Your task to perform on an android device: turn off airplane mode Image 0: 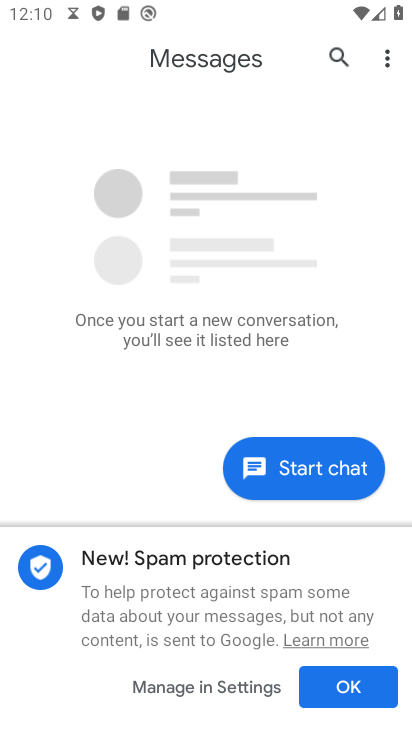
Step 0: press back button
Your task to perform on an android device: turn off airplane mode Image 1: 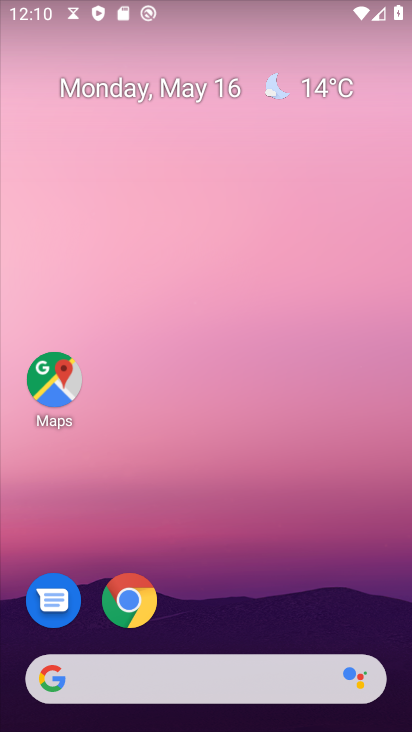
Step 1: drag from (197, 567) to (198, 52)
Your task to perform on an android device: turn off airplane mode Image 2: 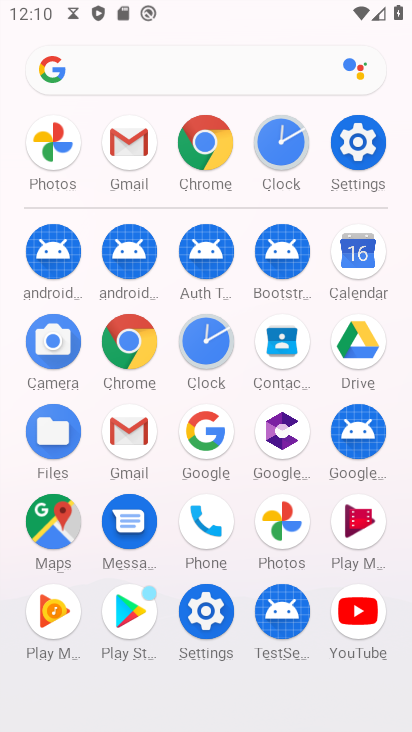
Step 2: click (207, 610)
Your task to perform on an android device: turn off airplane mode Image 3: 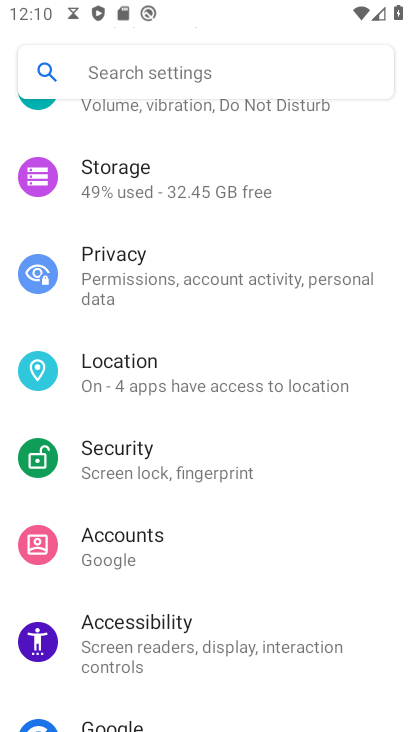
Step 3: drag from (213, 458) to (213, 566)
Your task to perform on an android device: turn off airplane mode Image 4: 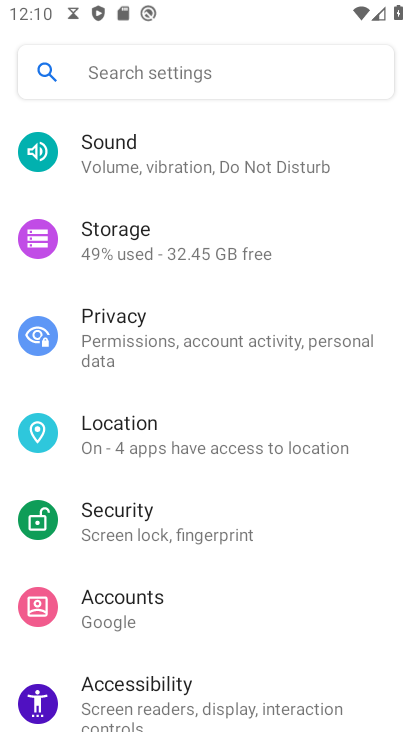
Step 4: drag from (241, 217) to (240, 644)
Your task to perform on an android device: turn off airplane mode Image 5: 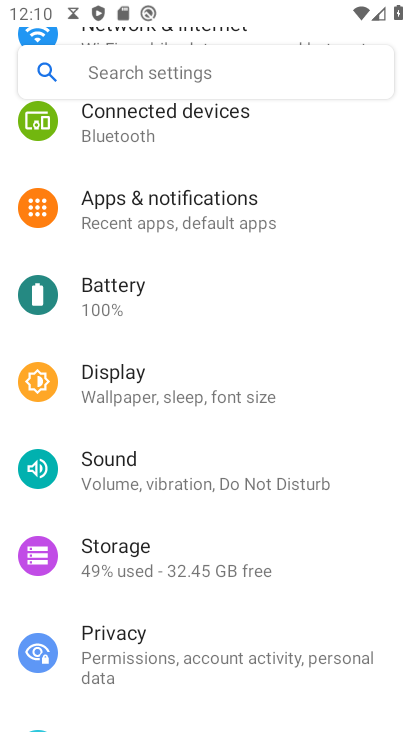
Step 5: drag from (240, 296) to (247, 651)
Your task to perform on an android device: turn off airplane mode Image 6: 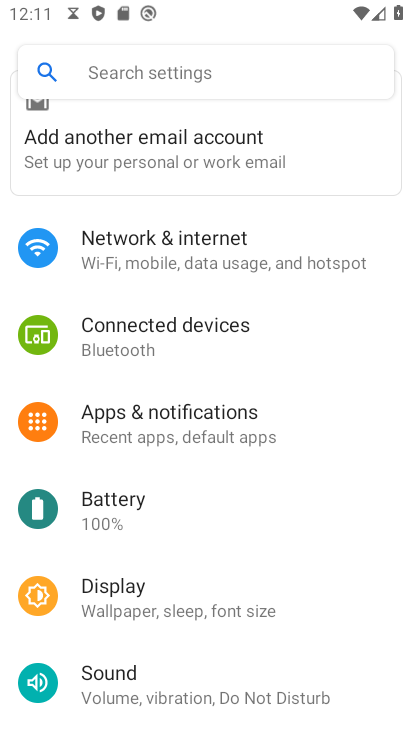
Step 6: click (167, 242)
Your task to perform on an android device: turn off airplane mode Image 7: 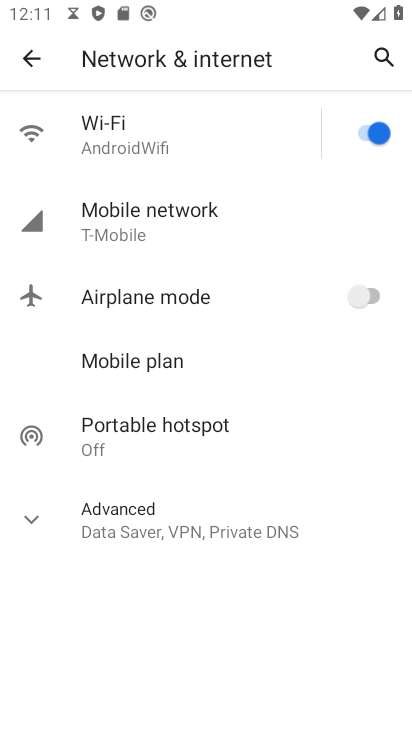
Step 7: task complete